Your task to perform on an android device: Turn off the flashlight Image 0: 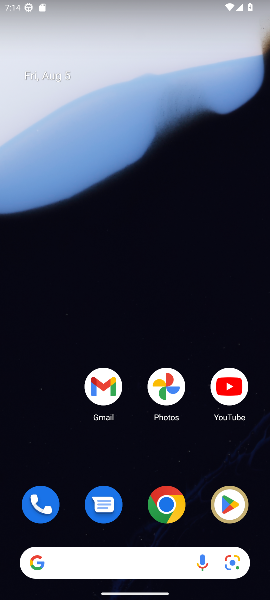
Step 0: drag from (100, 6) to (112, 459)
Your task to perform on an android device: Turn off the flashlight Image 1: 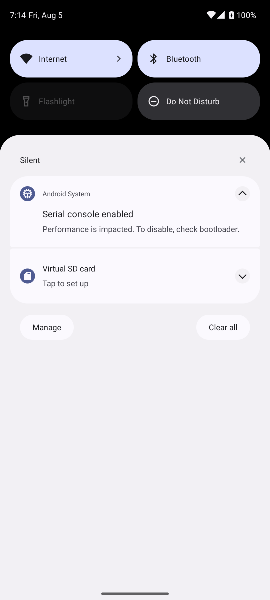
Step 1: task complete